Your task to perform on an android device: Open the calendar and show me this week's events Image 0: 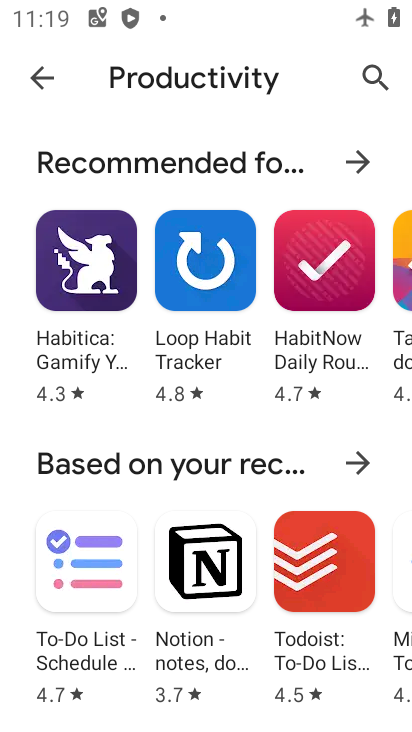
Step 0: press home button
Your task to perform on an android device: Open the calendar and show me this week's events Image 1: 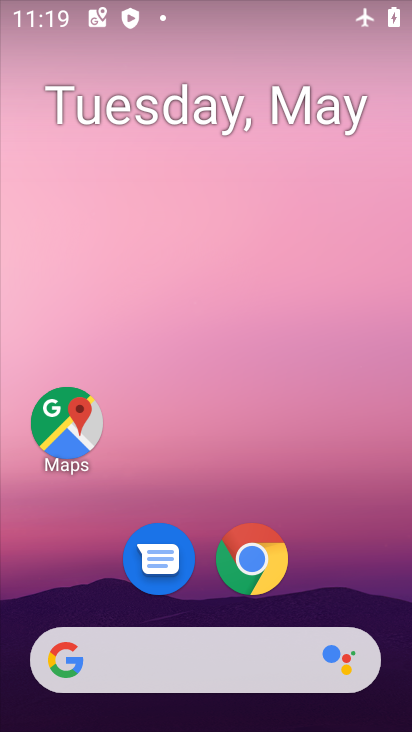
Step 1: drag from (353, 531) to (342, 196)
Your task to perform on an android device: Open the calendar and show me this week's events Image 2: 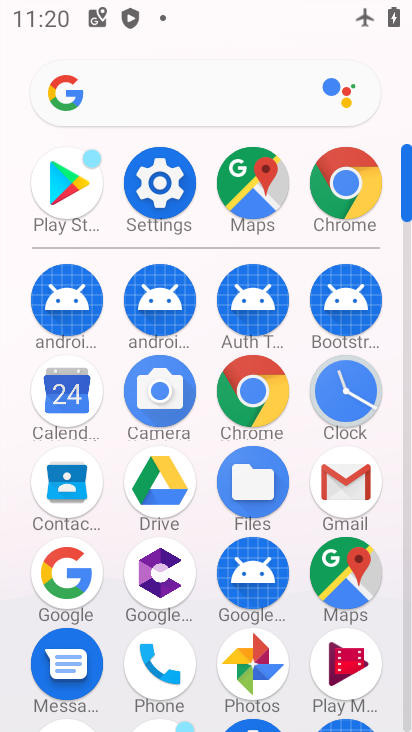
Step 2: click (61, 406)
Your task to perform on an android device: Open the calendar and show me this week's events Image 3: 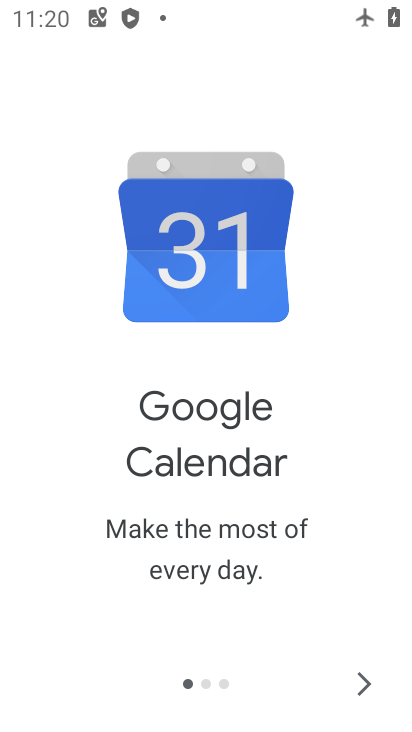
Step 3: click (360, 680)
Your task to perform on an android device: Open the calendar and show me this week's events Image 4: 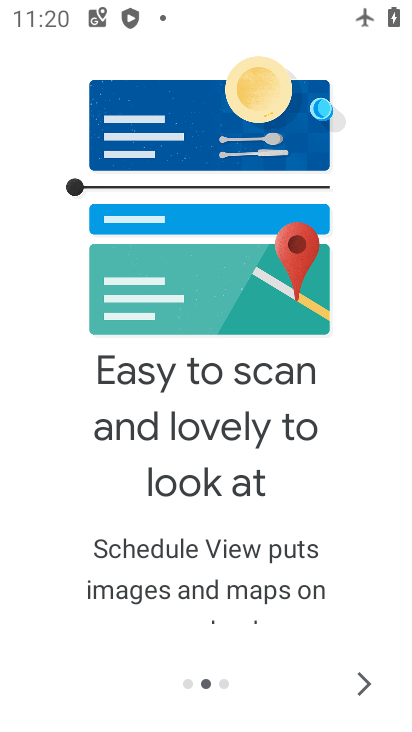
Step 4: click (360, 680)
Your task to perform on an android device: Open the calendar and show me this week's events Image 5: 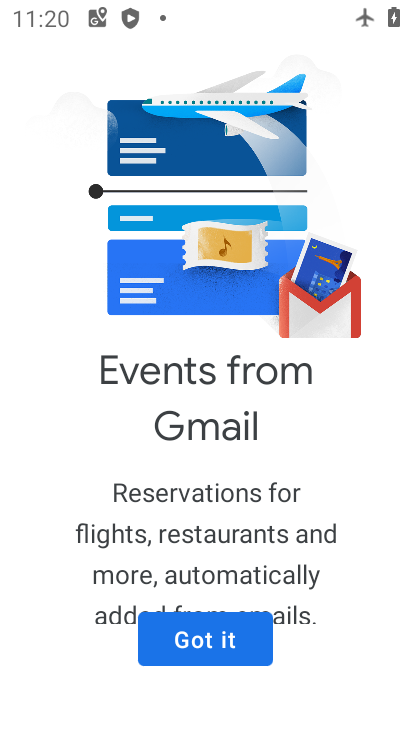
Step 5: click (214, 655)
Your task to perform on an android device: Open the calendar and show me this week's events Image 6: 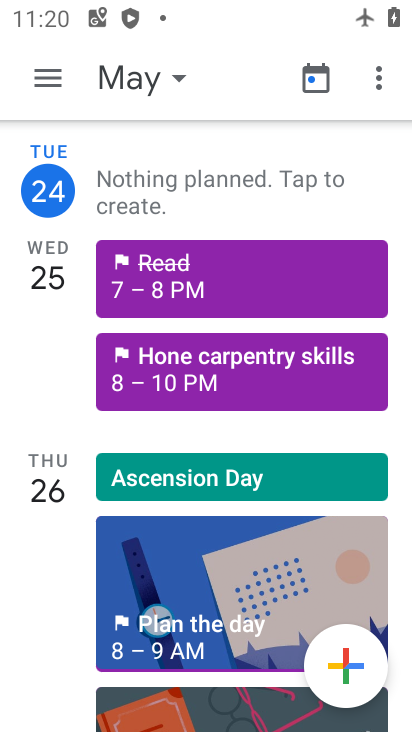
Step 6: click (157, 78)
Your task to perform on an android device: Open the calendar and show me this week's events Image 7: 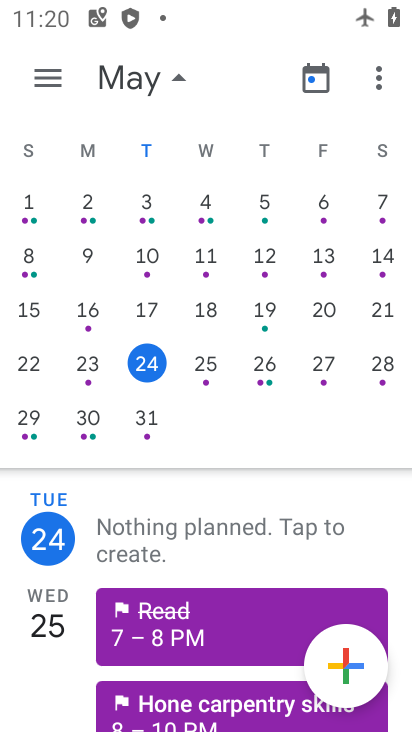
Step 7: click (31, 423)
Your task to perform on an android device: Open the calendar and show me this week's events Image 8: 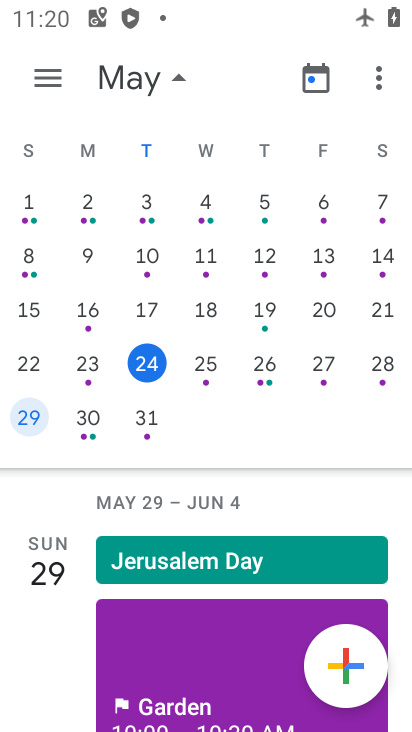
Step 8: task complete